Your task to perform on an android device: Search for alienware area 51 on target, select the first entry, add it to the cart, then select checkout. Image 0: 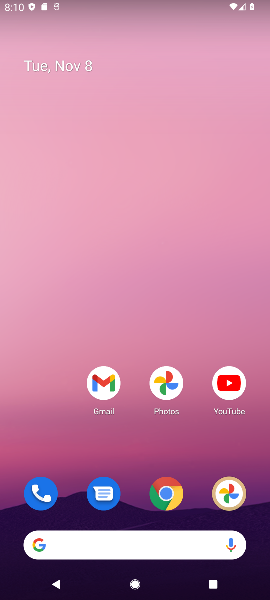
Step 0: click (170, 497)
Your task to perform on an android device: Search for alienware area 51 on target, select the first entry, add it to the cart, then select checkout. Image 1: 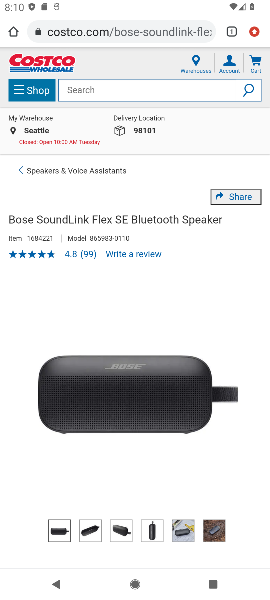
Step 1: click (89, 34)
Your task to perform on an android device: Search for alienware area 51 on target, select the first entry, add it to the cart, then select checkout. Image 2: 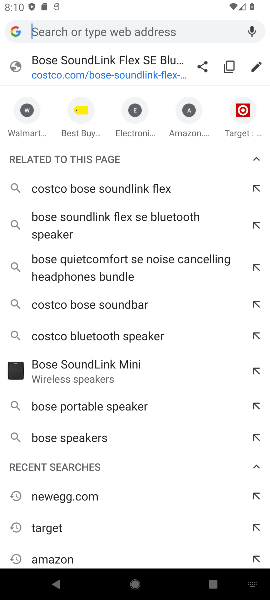
Step 2: click (245, 120)
Your task to perform on an android device: Search for alienware area 51 on target, select the first entry, add it to the cart, then select checkout. Image 3: 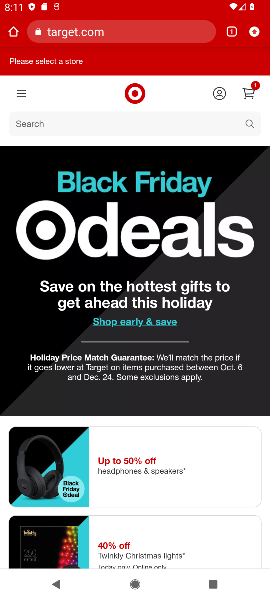
Step 3: click (251, 123)
Your task to perform on an android device: Search for alienware area 51 on target, select the first entry, add it to the cart, then select checkout. Image 4: 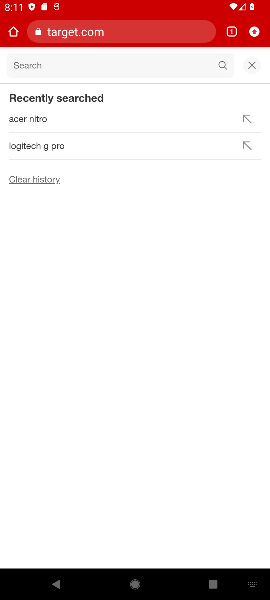
Step 4: type "alienware area 51"
Your task to perform on an android device: Search for alienware area 51 on target, select the first entry, add it to the cart, then select checkout. Image 5: 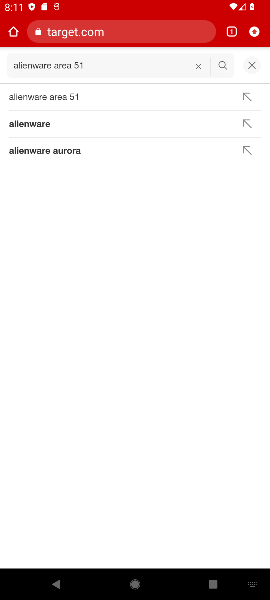
Step 5: click (35, 97)
Your task to perform on an android device: Search for alienware area 51 on target, select the first entry, add it to the cart, then select checkout. Image 6: 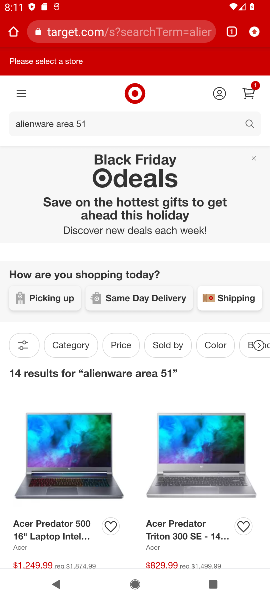
Step 6: task complete